Your task to perform on an android device: When is my next appointment? Image 0: 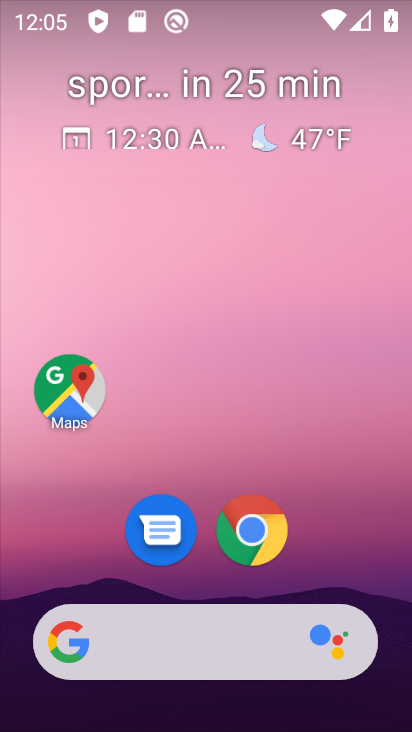
Step 0: drag from (369, 574) to (367, 196)
Your task to perform on an android device: When is my next appointment? Image 1: 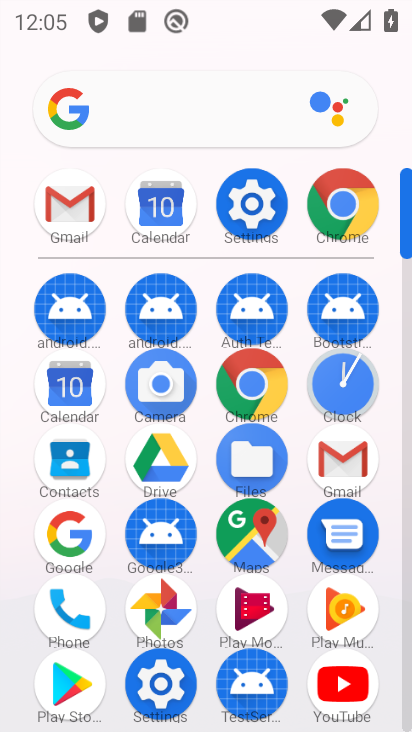
Step 1: click (52, 396)
Your task to perform on an android device: When is my next appointment? Image 2: 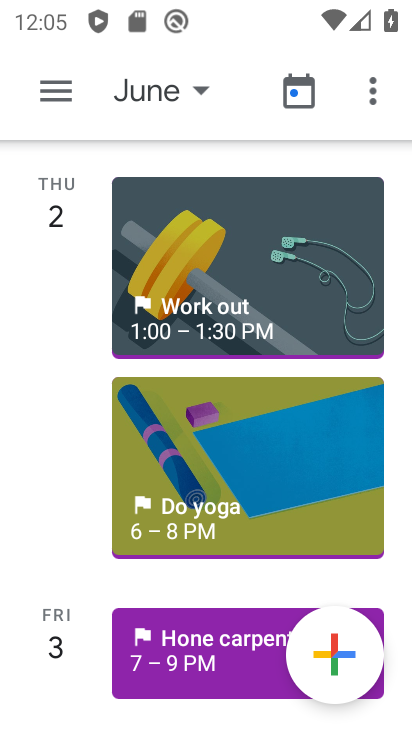
Step 2: click (164, 120)
Your task to perform on an android device: When is my next appointment? Image 3: 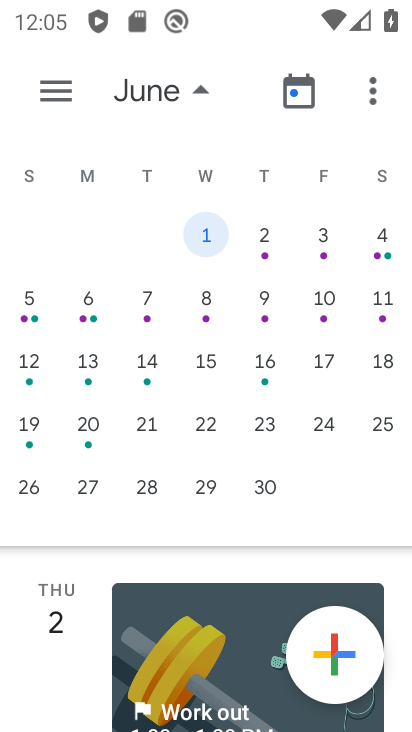
Step 3: drag from (96, 264) to (365, 256)
Your task to perform on an android device: When is my next appointment? Image 4: 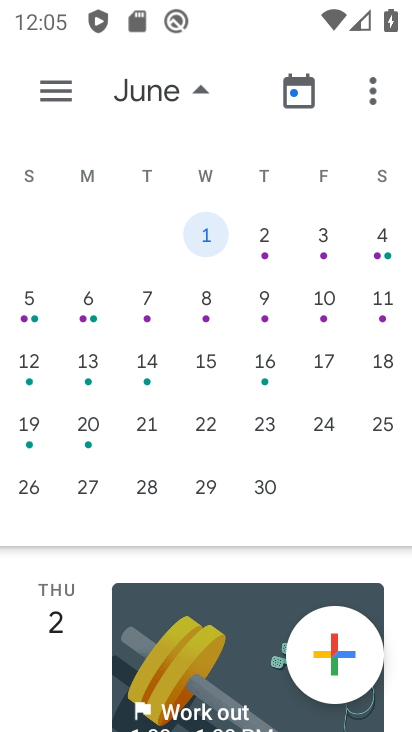
Step 4: drag from (87, 241) to (385, 236)
Your task to perform on an android device: When is my next appointment? Image 5: 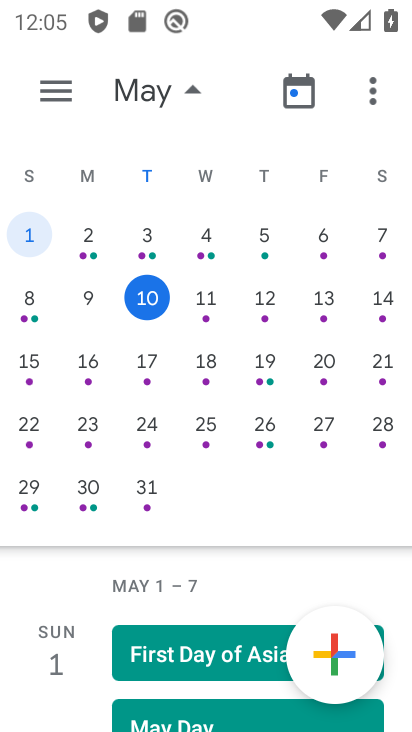
Step 5: click (129, 447)
Your task to perform on an android device: When is my next appointment? Image 6: 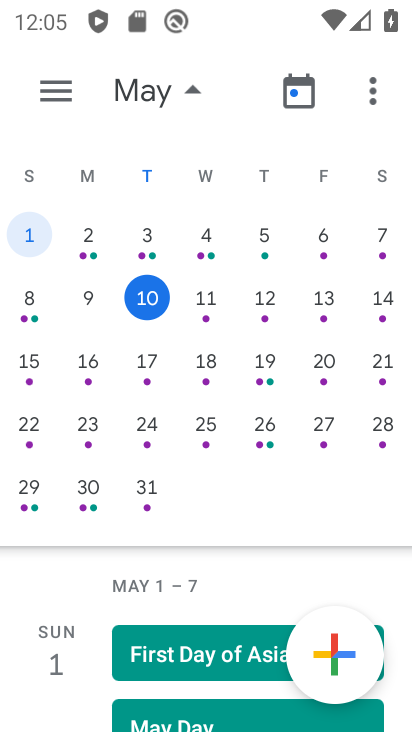
Step 6: click (211, 298)
Your task to perform on an android device: When is my next appointment? Image 7: 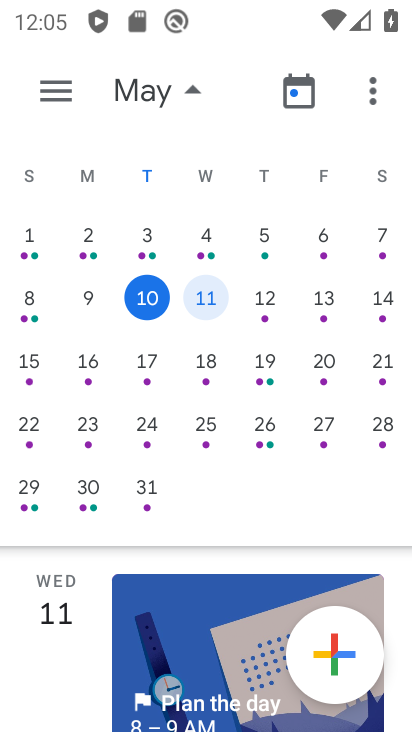
Step 7: task complete